Your task to perform on an android device: Open Yahoo.com Image 0: 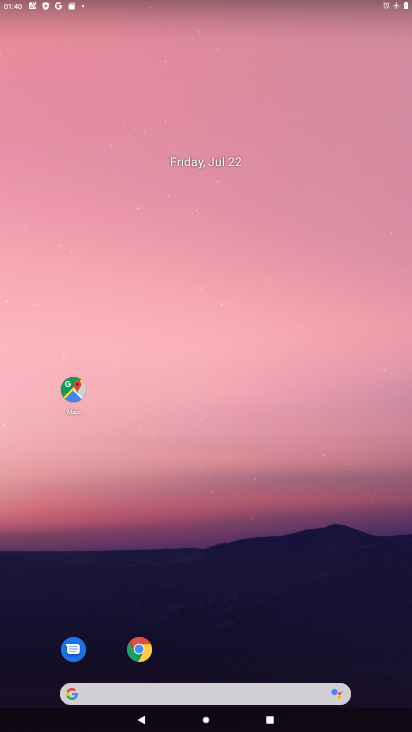
Step 0: drag from (279, 565) to (270, 134)
Your task to perform on an android device: Open Yahoo.com Image 1: 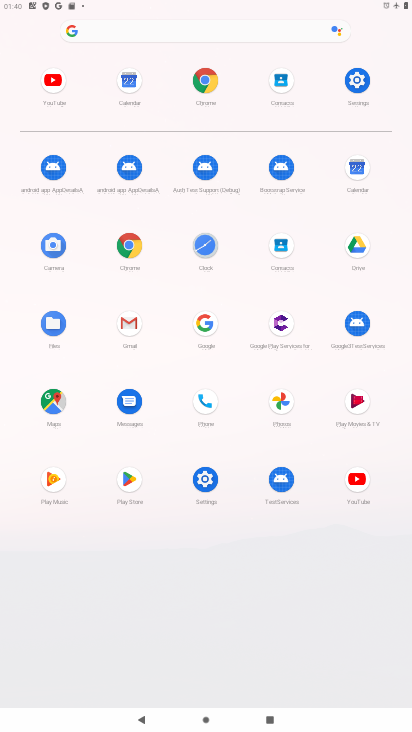
Step 1: click (206, 75)
Your task to perform on an android device: Open Yahoo.com Image 2: 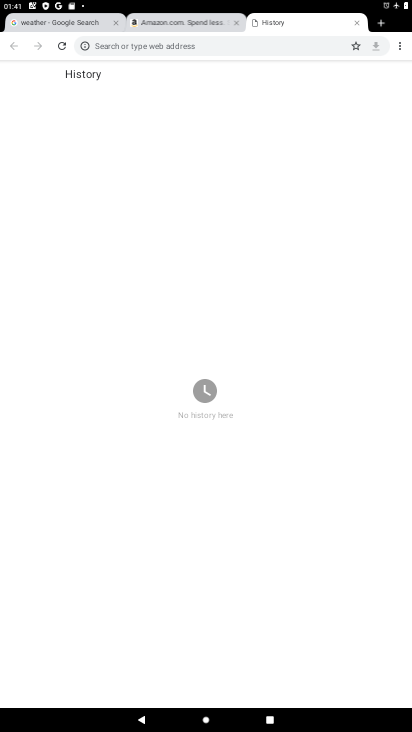
Step 2: click (186, 52)
Your task to perform on an android device: Open Yahoo.com Image 3: 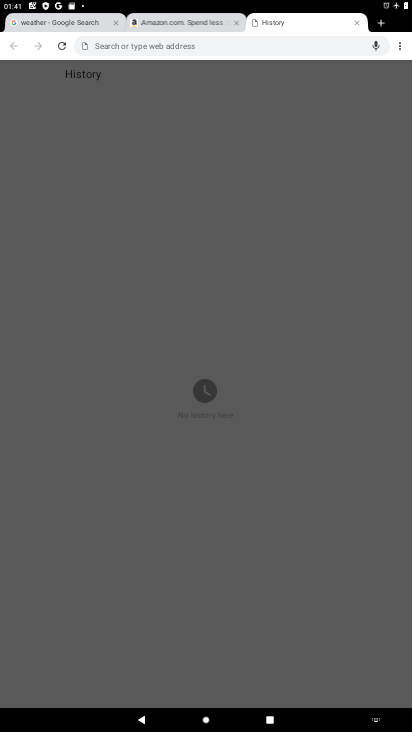
Step 3: type "yahoo.com"
Your task to perform on an android device: Open Yahoo.com Image 4: 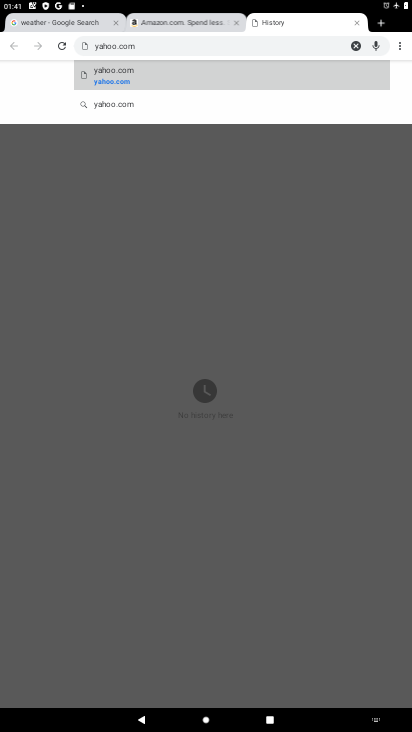
Step 4: click (220, 70)
Your task to perform on an android device: Open Yahoo.com Image 5: 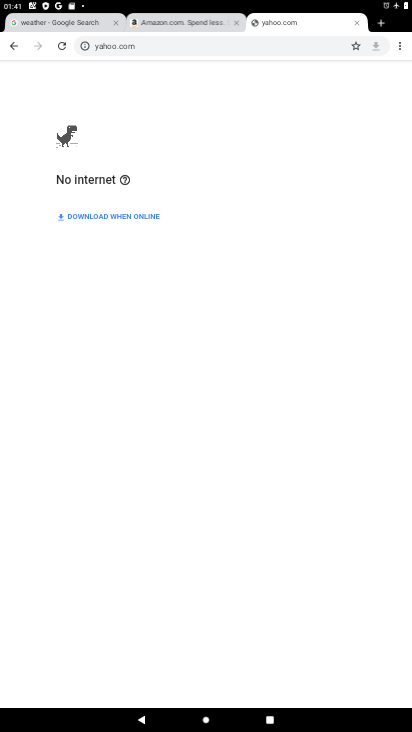
Step 5: task complete